Your task to perform on an android device: toggle notifications settings in the gmail app Image 0: 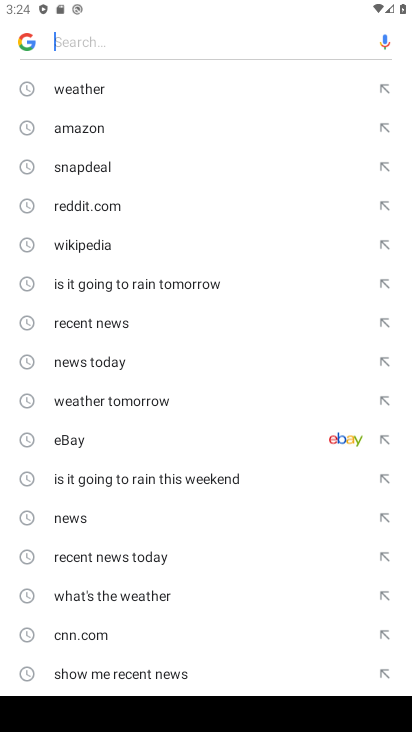
Step 0: press back button
Your task to perform on an android device: toggle notifications settings in the gmail app Image 1: 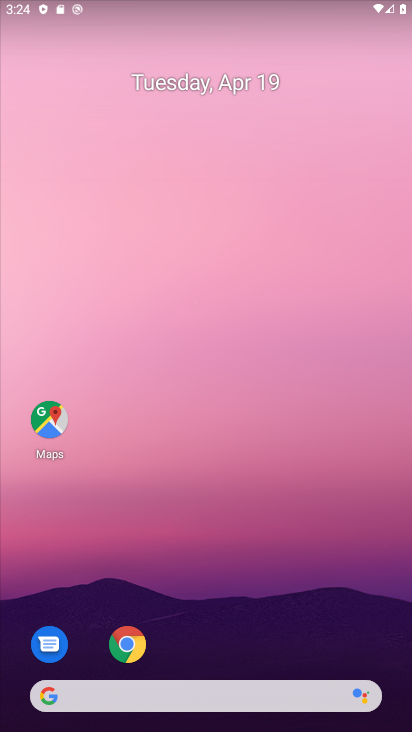
Step 1: drag from (231, 516) to (296, 132)
Your task to perform on an android device: toggle notifications settings in the gmail app Image 2: 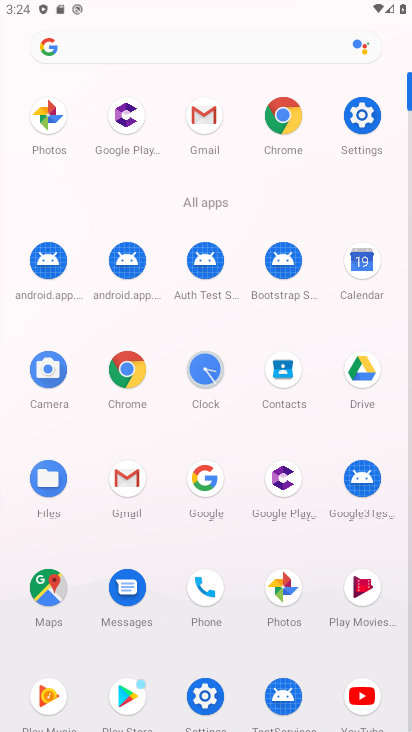
Step 2: click (122, 486)
Your task to perform on an android device: toggle notifications settings in the gmail app Image 3: 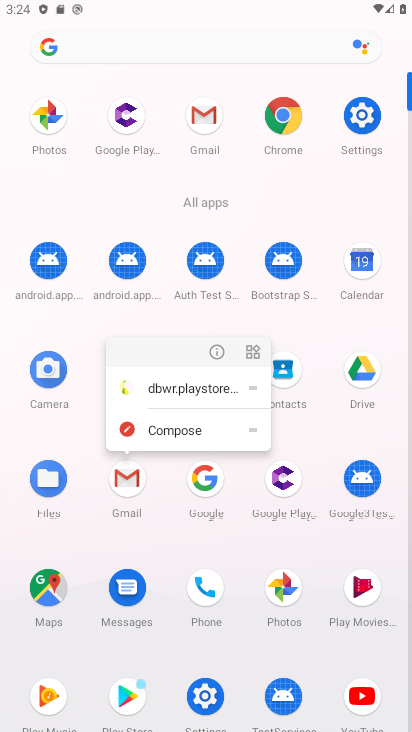
Step 3: click (124, 479)
Your task to perform on an android device: toggle notifications settings in the gmail app Image 4: 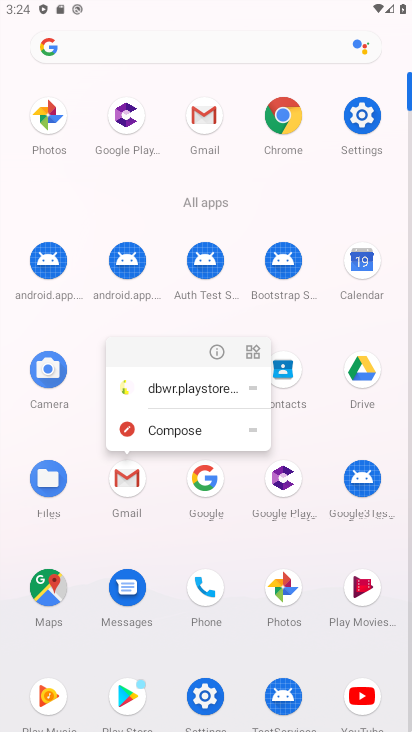
Step 4: click (130, 481)
Your task to perform on an android device: toggle notifications settings in the gmail app Image 5: 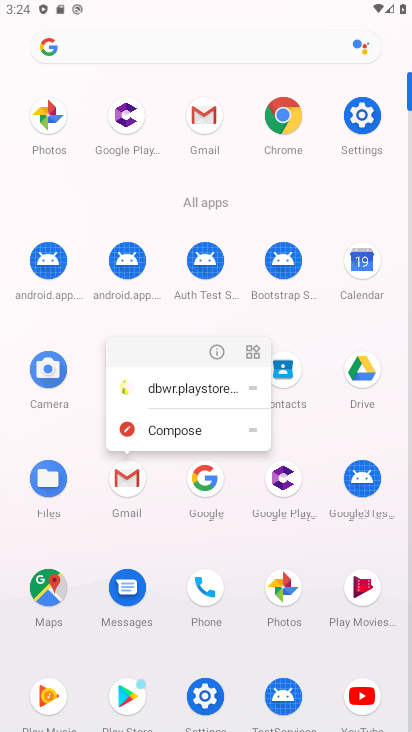
Step 5: click (131, 486)
Your task to perform on an android device: toggle notifications settings in the gmail app Image 6: 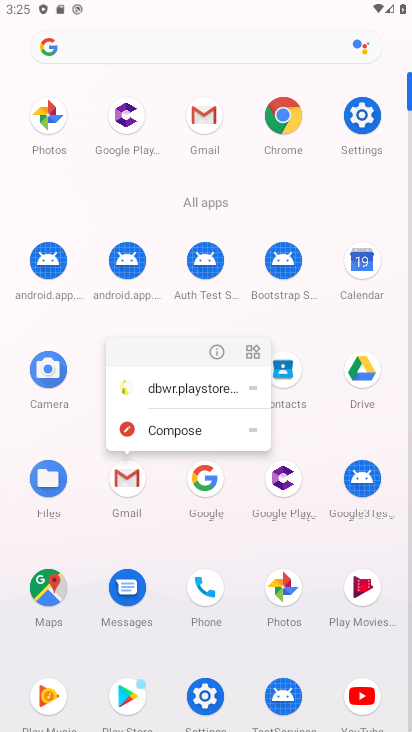
Step 6: click (131, 484)
Your task to perform on an android device: toggle notifications settings in the gmail app Image 7: 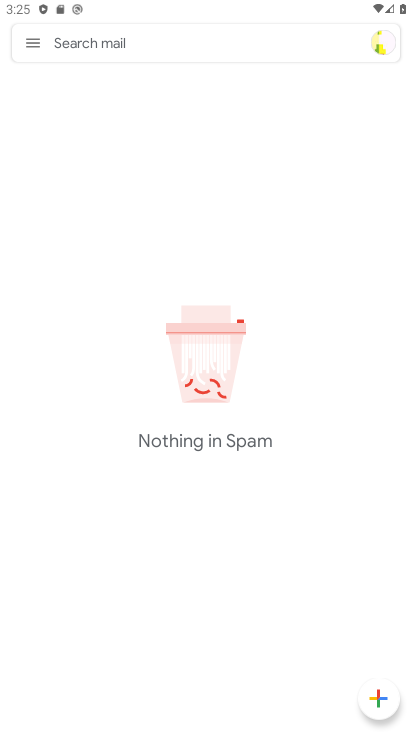
Step 7: click (36, 50)
Your task to perform on an android device: toggle notifications settings in the gmail app Image 8: 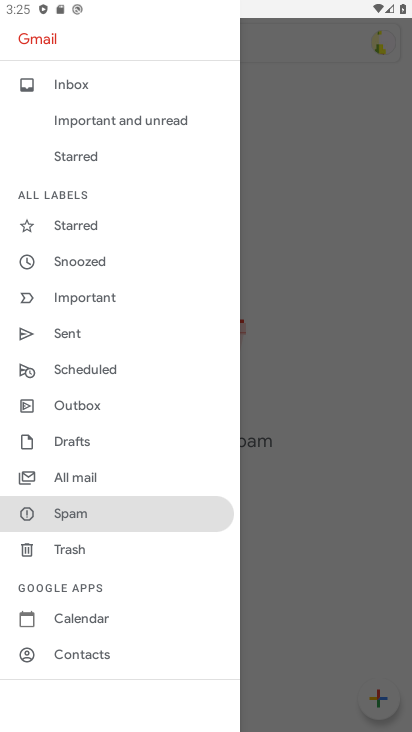
Step 8: drag from (123, 646) to (181, 413)
Your task to perform on an android device: toggle notifications settings in the gmail app Image 9: 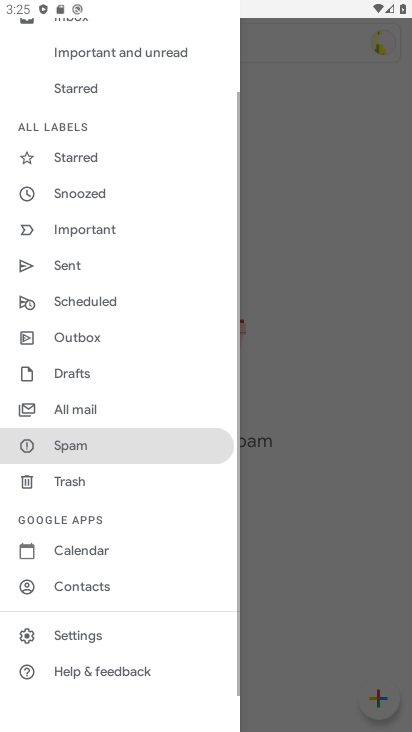
Step 9: click (88, 638)
Your task to perform on an android device: toggle notifications settings in the gmail app Image 10: 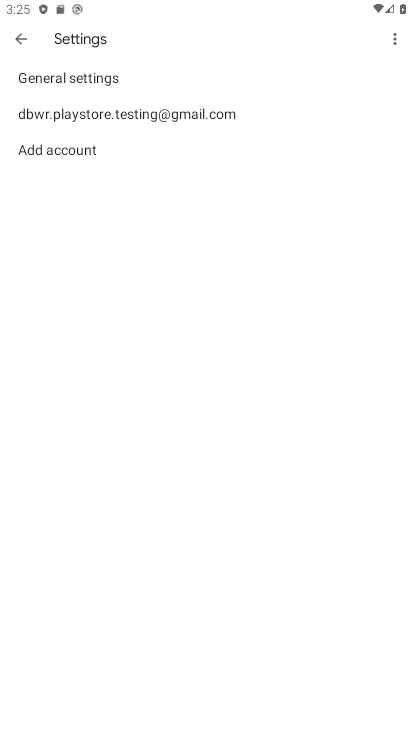
Step 10: click (232, 118)
Your task to perform on an android device: toggle notifications settings in the gmail app Image 11: 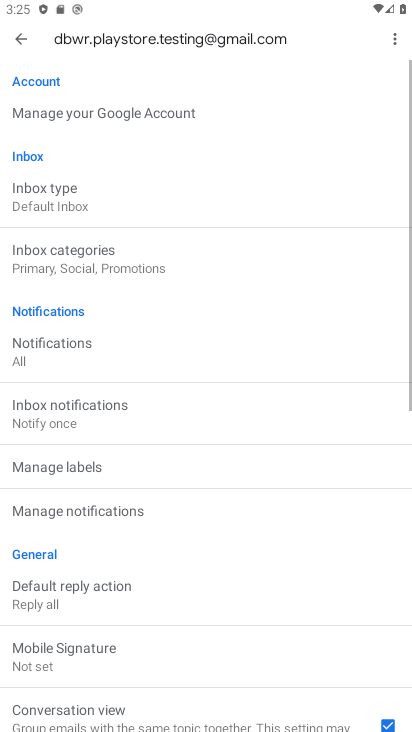
Step 11: drag from (195, 541) to (274, 192)
Your task to perform on an android device: toggle notifications settings in the gmail app Image 12: 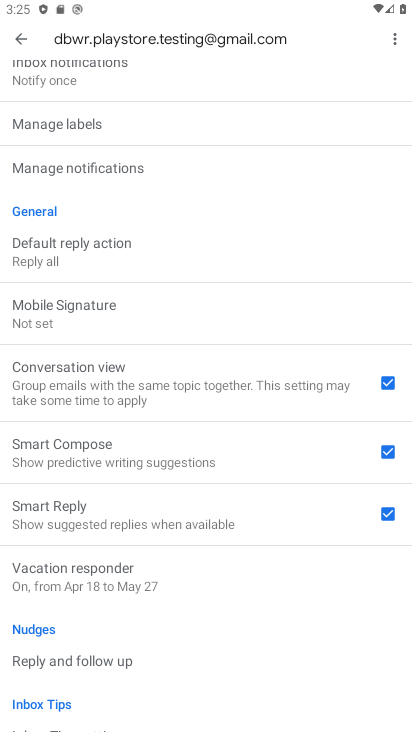
Step 12: click (135, 173)
Your task to perform on an android device: toggle notifications settings in the gmail app Image 13: 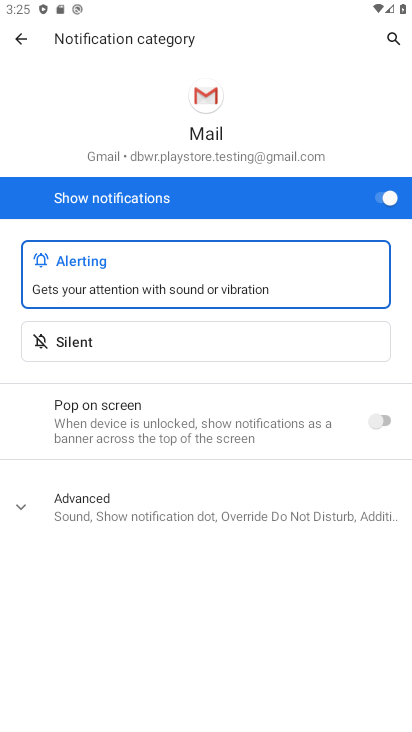
Step 13: click (386, 193)
Your task to perform on an android device: toggle notifications settings in the gmail app Image 14: 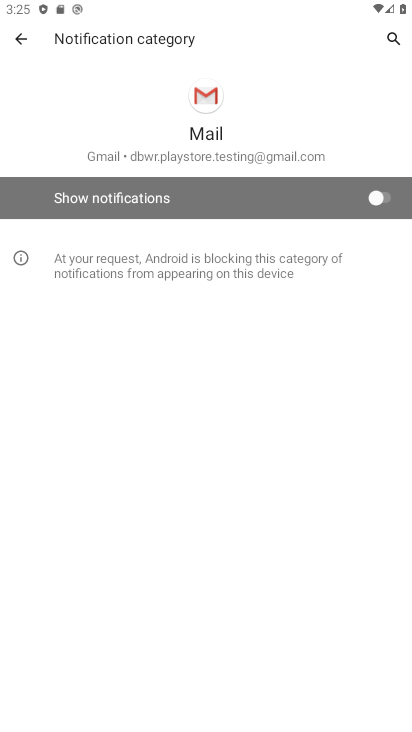
Step 14: task complete